Your task to perform on an android device: turn off airplane mode Image 0: 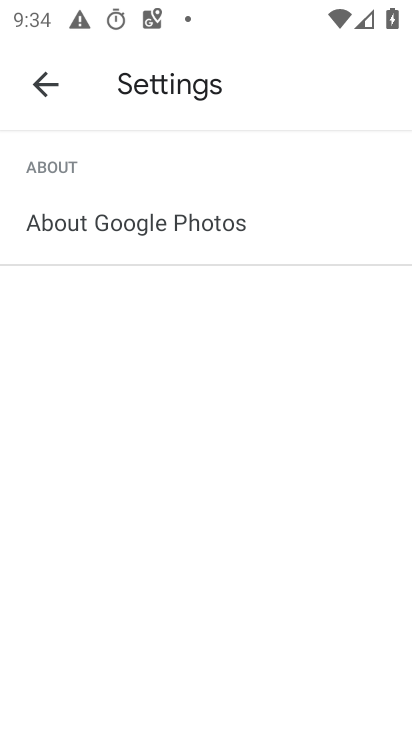
Step 0: press home button
Your task to perform on an android device: turn off airplane mode Image 1: 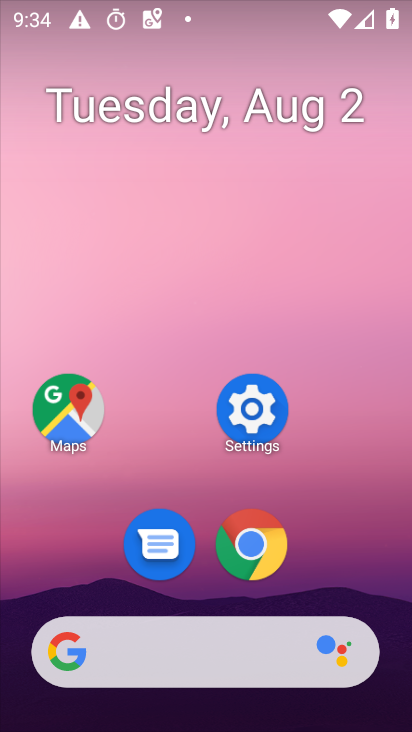
Step 1: drag from (136, 661) to (219, 68)
Your task to perform on an android device: turn off airplane mode Image 2: 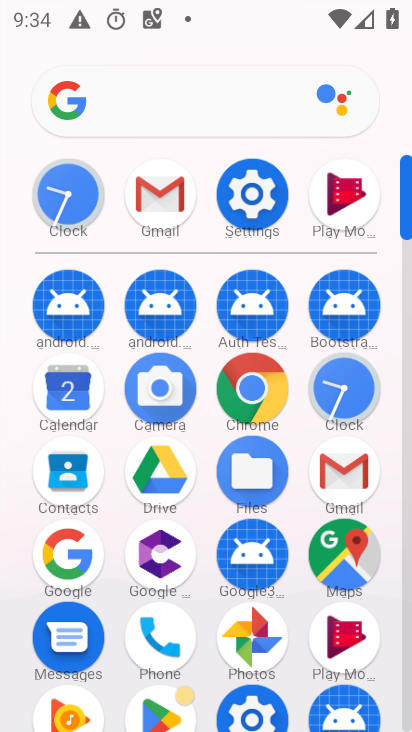
Step 2: click (253, 190)
Your task to perform on an android device: turn off airplane mode Image 3: 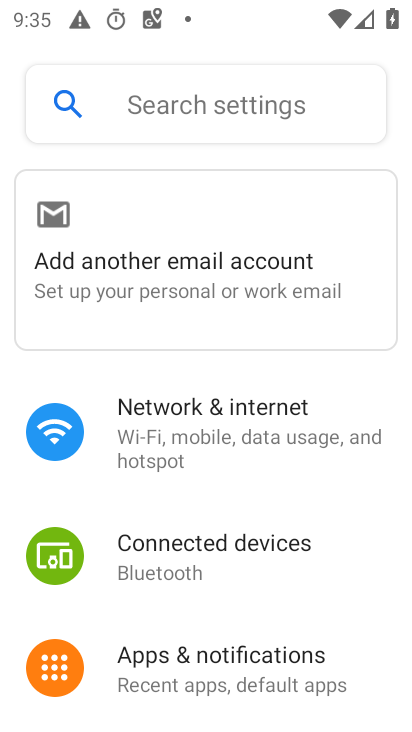
Step 3: click (243, 414)
Your task to perform on an android device: turn off airplane mode Image 4: 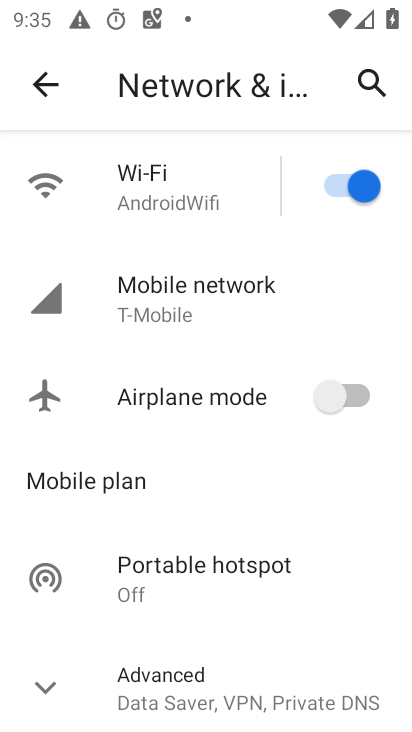
Step 4: task complete